Your task to perform on an android device: turn on sleep mode Image 0: 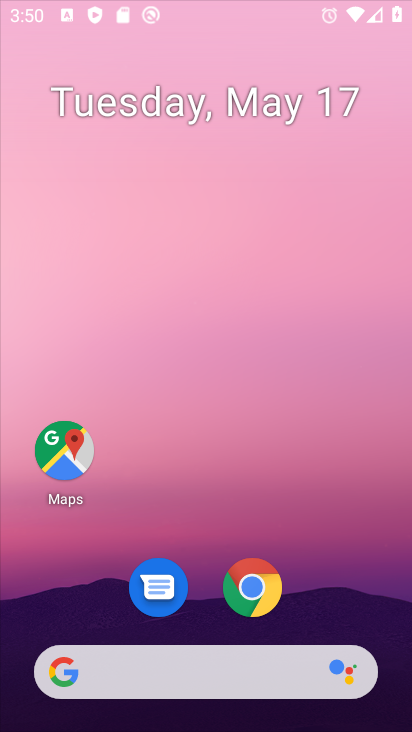
Step 0: drag from (197, 587) to (216, 81)
Your task to perform on an android device: turn on sleep mode Image 1: 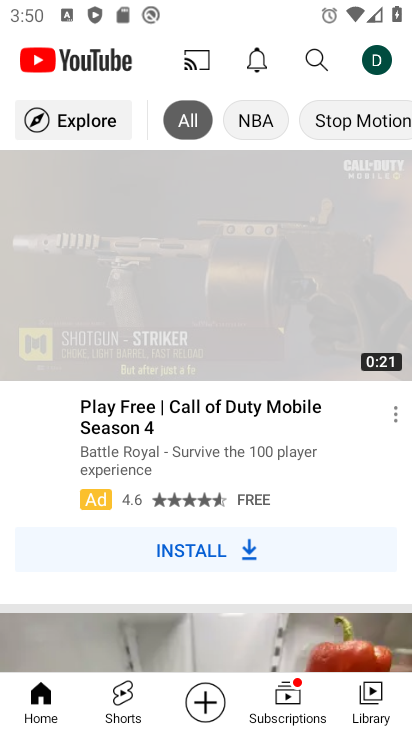
Step 1: press home button
Your task to perform on an android device: turn on sleep mode Image 2: 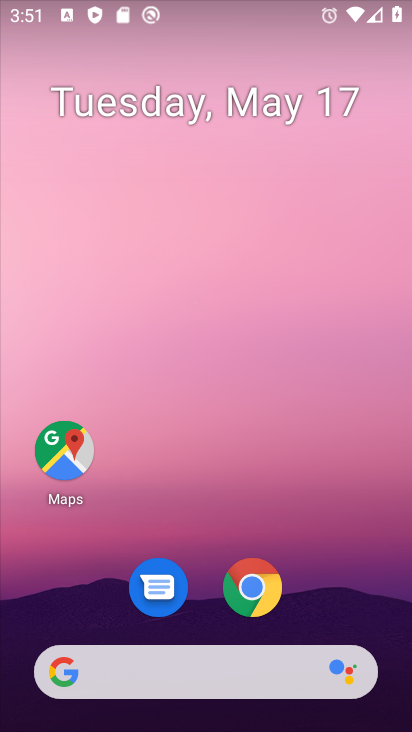
Step 2: drag from (194, 624) to (251, 173)
Your task to perform on an android device: turn on sleep mode Image 3: 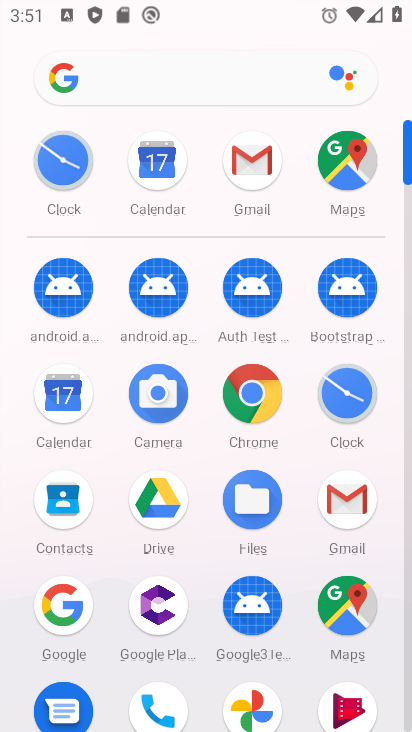
Step 3: drag from (204, 645) to (217, 276)
Your task to perform on an android device: turn on sleep mode Image 4: 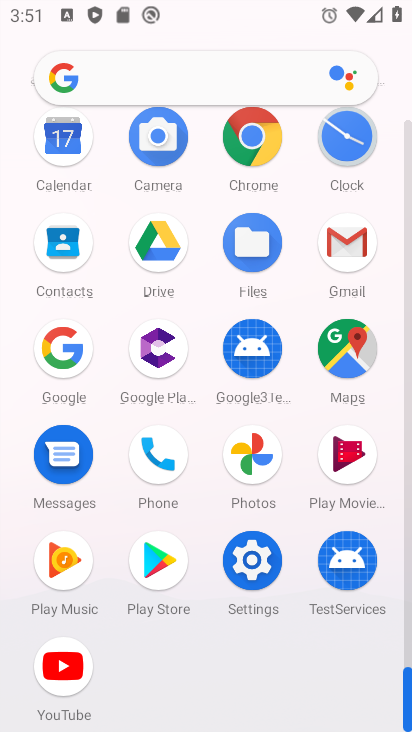
Step 4: click (239, 554)
Your task to perform on an android device: turn on sleep mode Image 5: 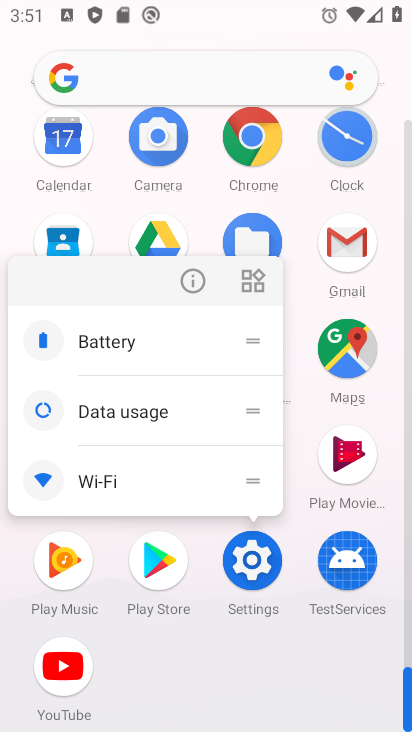
Step 5: click (192, 279)
Your task to perform on an android device: turn on sleep mode Image 6: 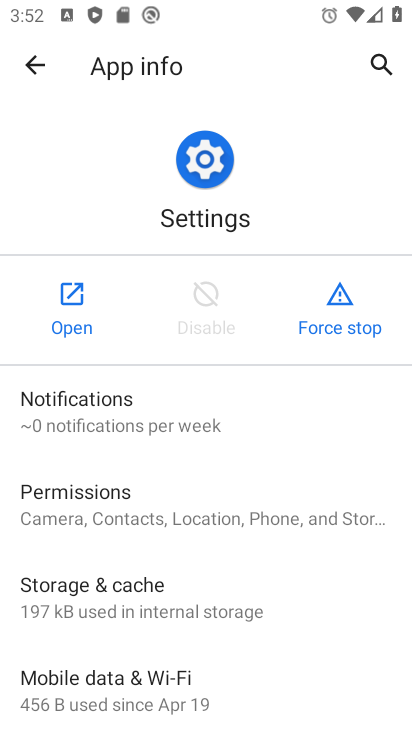
Step 6: drag from (252, 650) to (311, 114)
Your task to perform on an android device: turn on sleep mode Image 7: 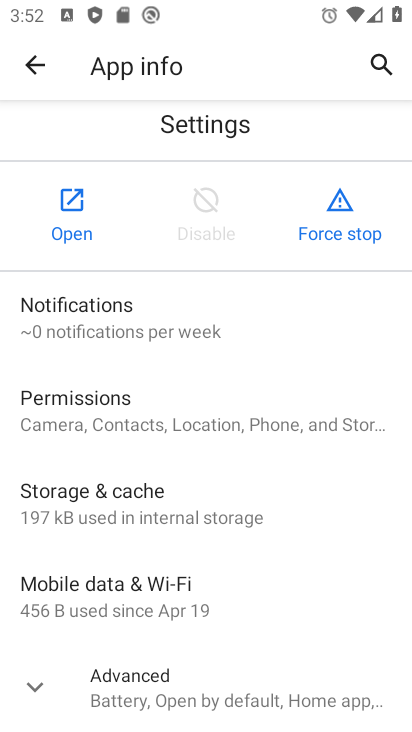
Step 7: click (67, 207)
Your task to perform on an android device: turn on sleep mode Image 8: 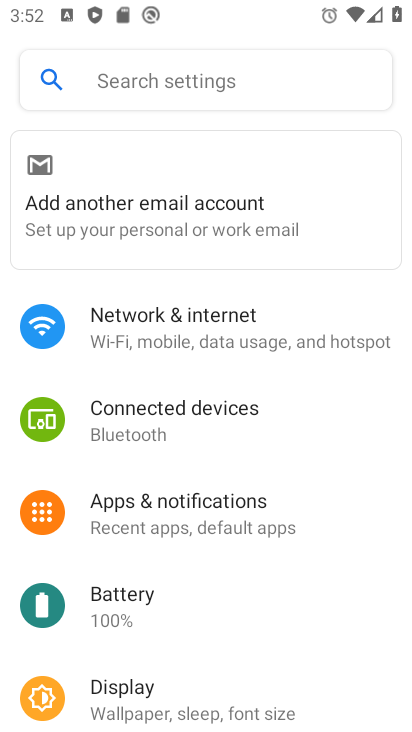
Step 8: drag from (260, 604) to (320, 4)
Your task to perform on an android device: turn on sleep mode Image 9: 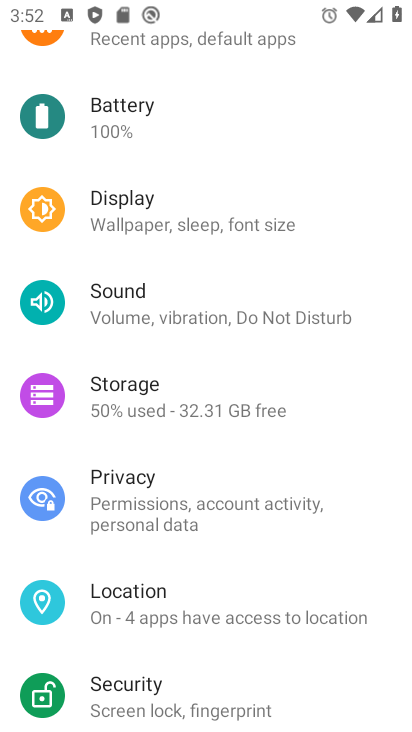
Step 9: click (143, 197)
Your task to perform on an android device: turn on sleep mode Image 10: 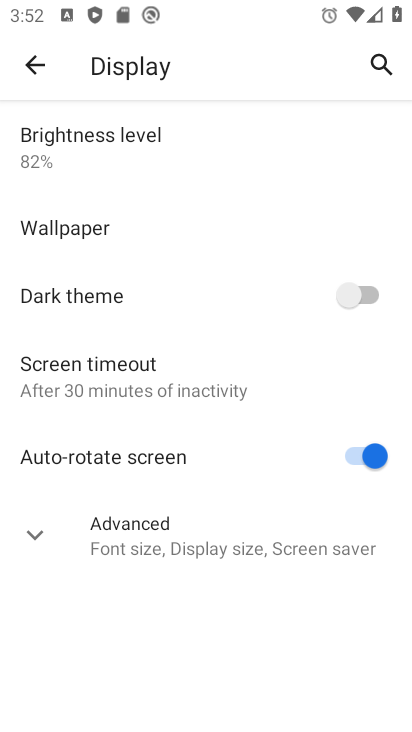
Step 10: click (94, 377)
Your task to perform on an android device: turn on sleep mode Image 11: 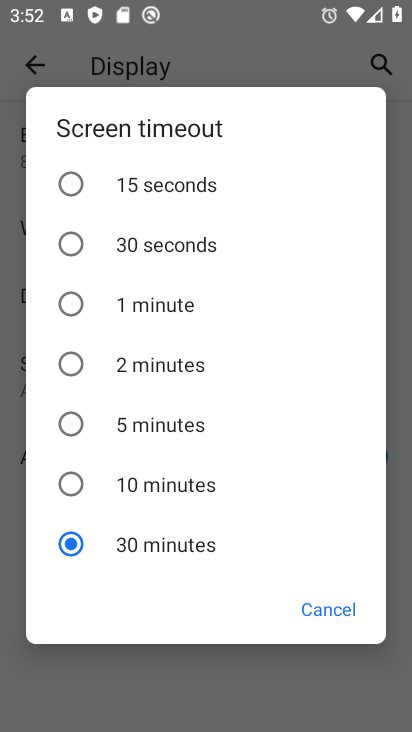
Step 11: task complete